Your task to perform on an android device: remove spam from my inbox in the gmail app Image 0: 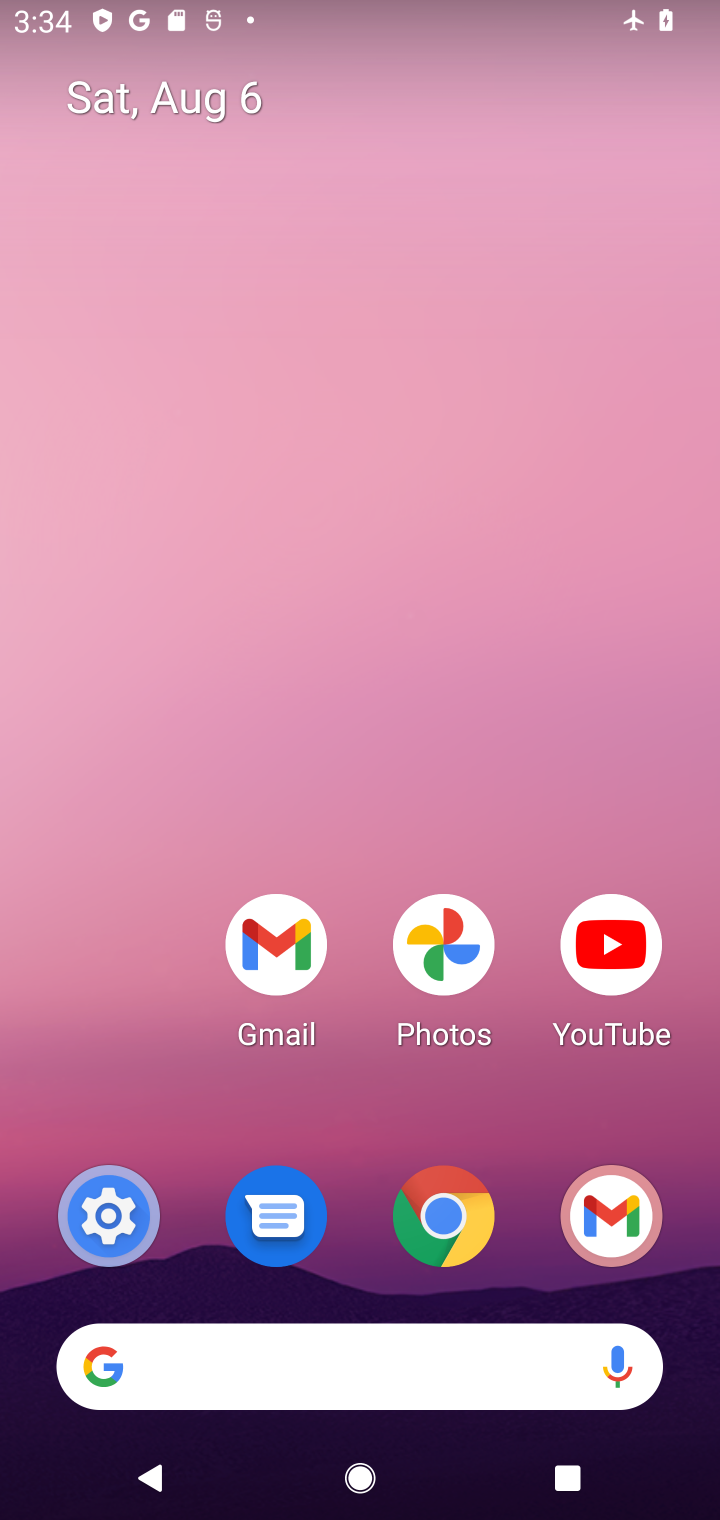
Step 0: click (284, 961)
Your task to perform on an android device: remove spam from my inbox in the gmail app Image 1: 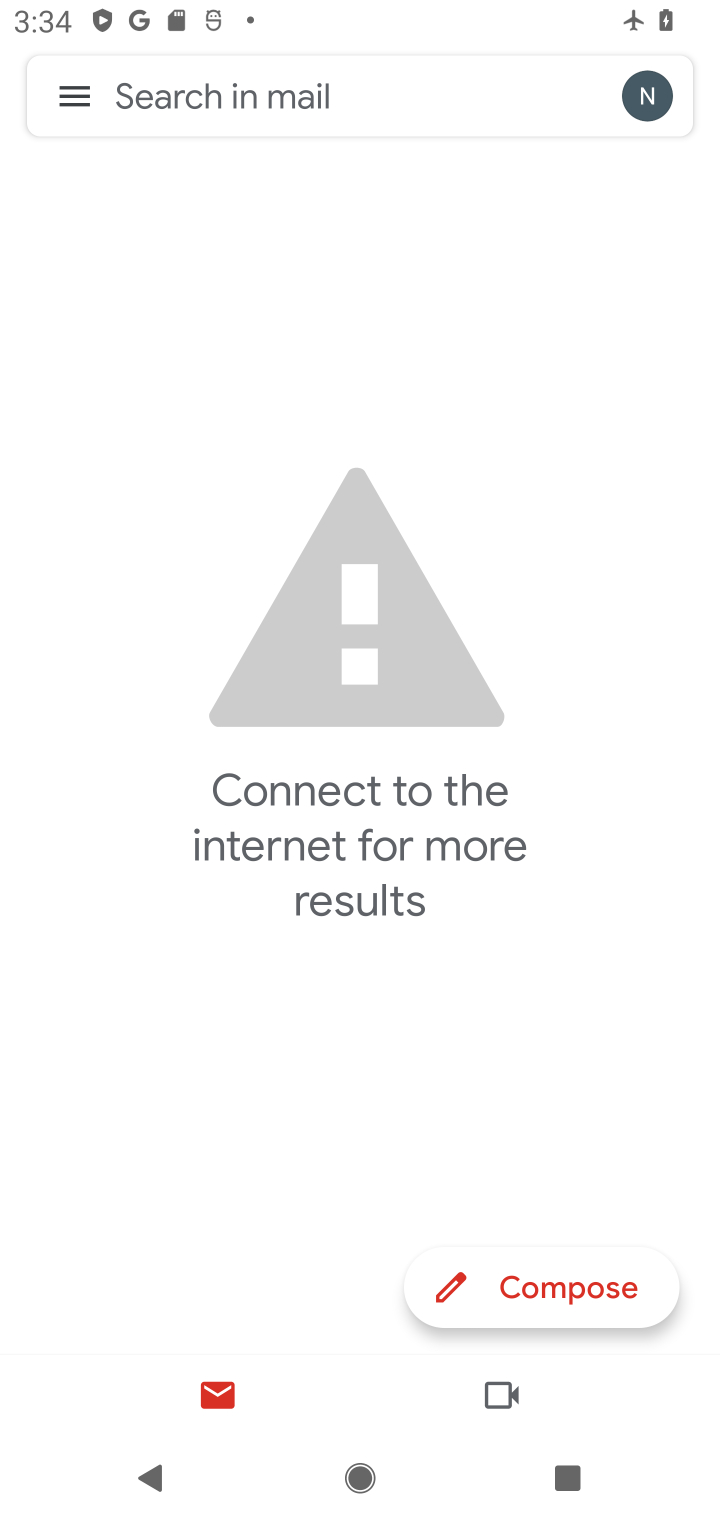
Step 1: click (67, 108)
Your task to perform on an android device: remove spam from my inbox in the gmail app Image 2: 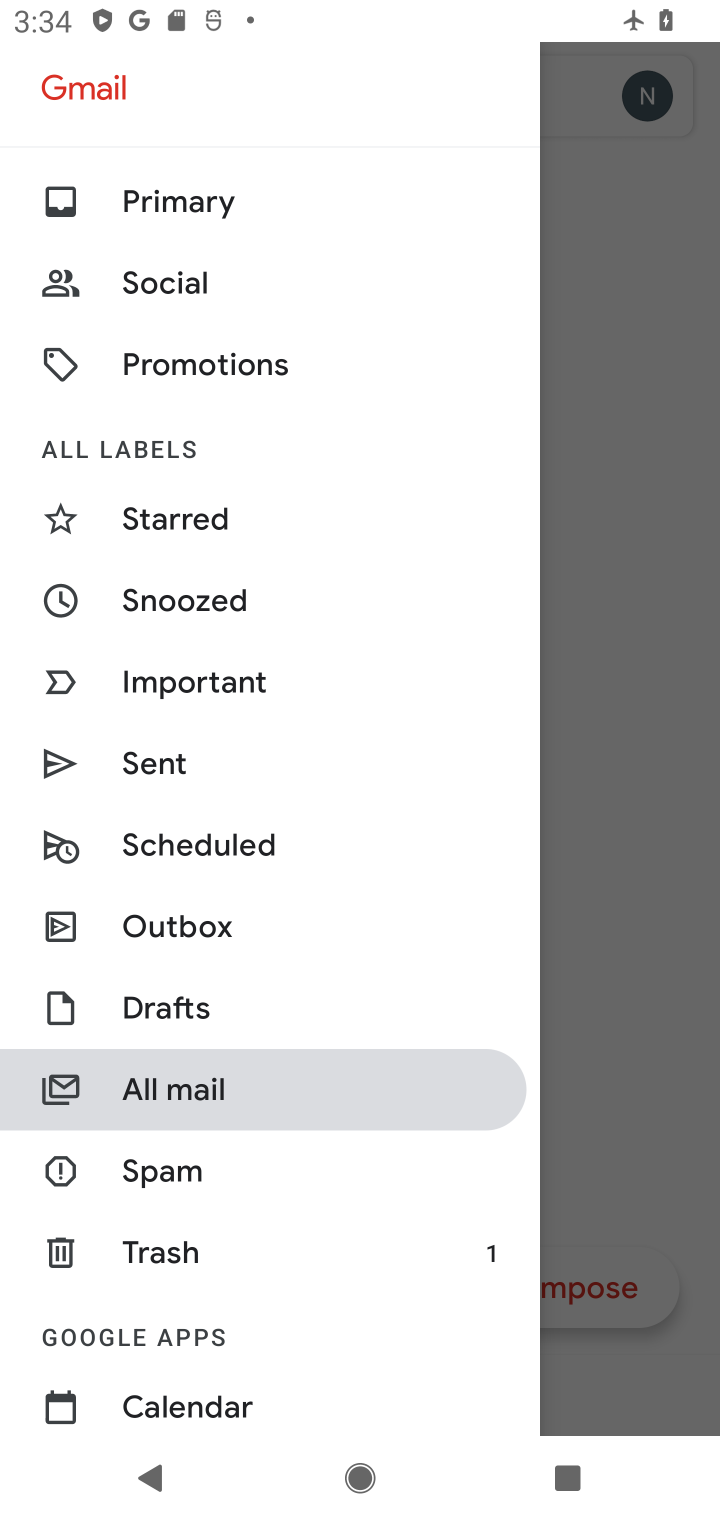
Step 2: click (192, 1181)
Your task to perform on an android device: remove spam from my inbox in the gmail app Image 3: 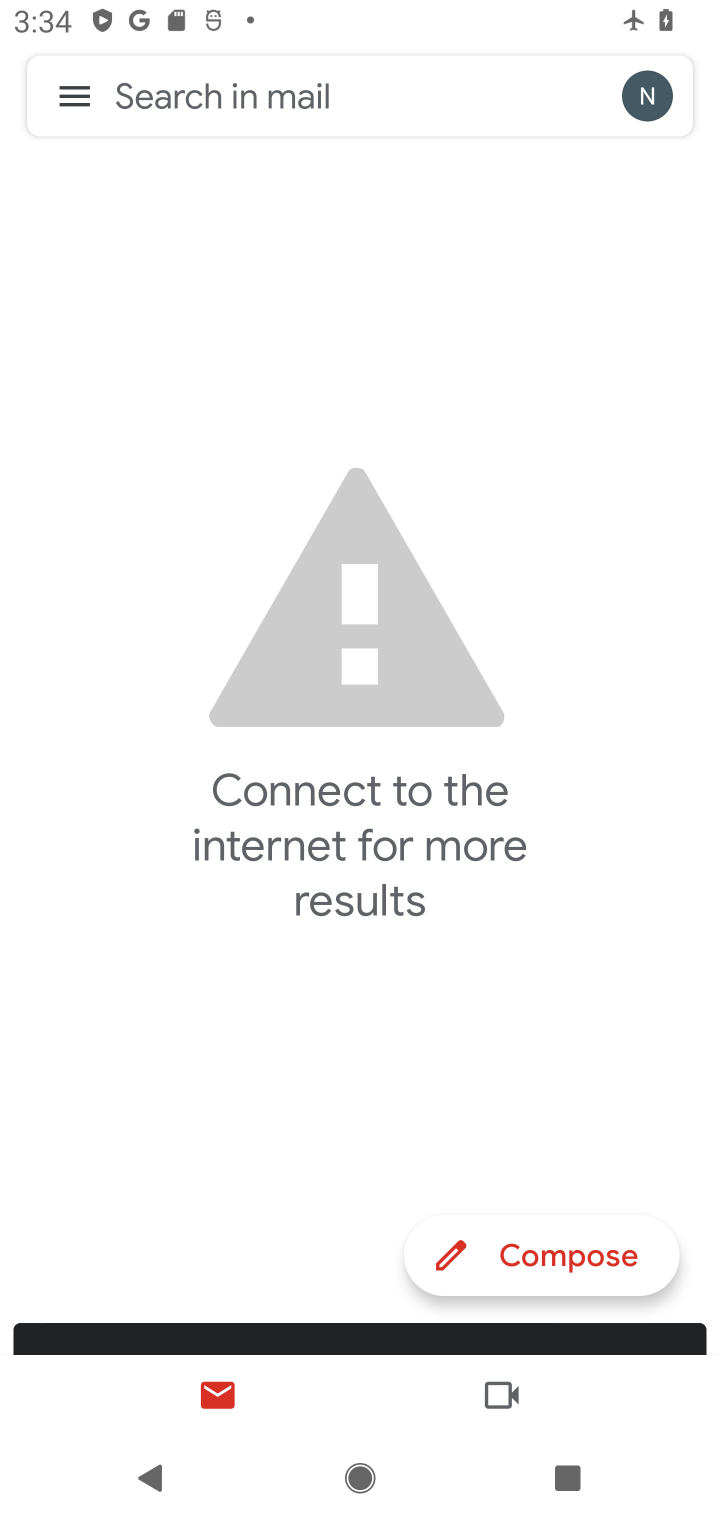
Step 3: task complete